Your task to perform on an android device: Do I have any events this weekend? Image 0: 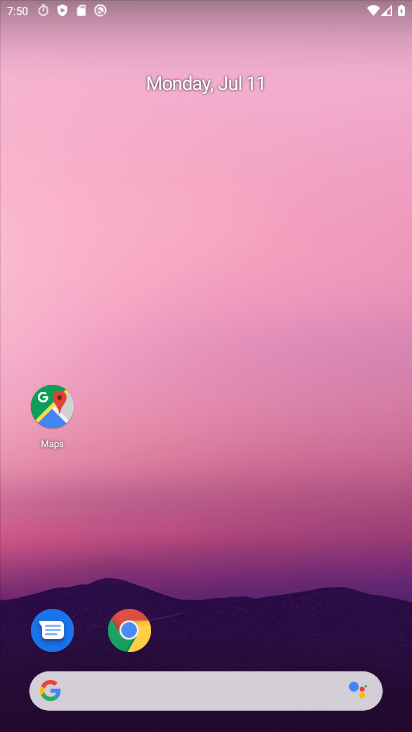
Step 0: drag from (166, 676) to (282, 228)
Your task to perform on an android device: Do I have any events this weekend? Image 1: 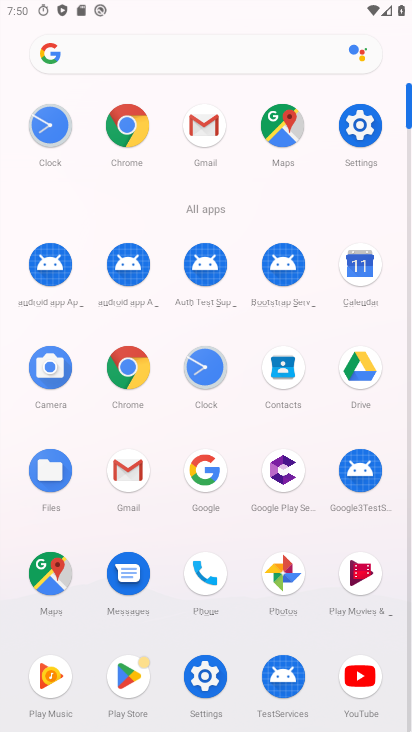
Step 1: click (362, 275)
Your task to perform on an android device: Do I have any events this weekend? Image 2: 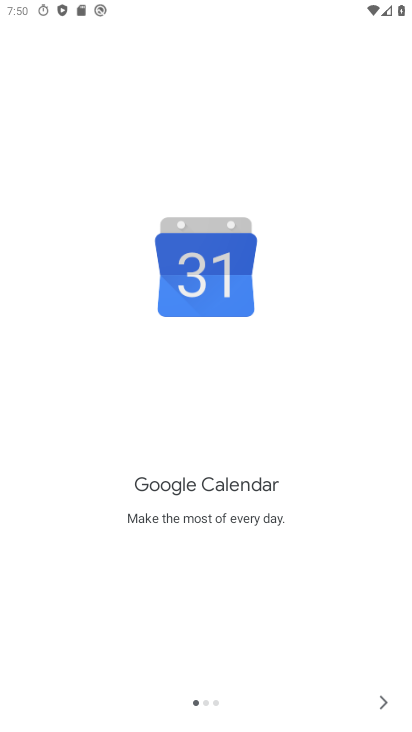
Step 2: click (381, 695)
Your task to perform on an android device: Do I have any events this weekend? Image 3: 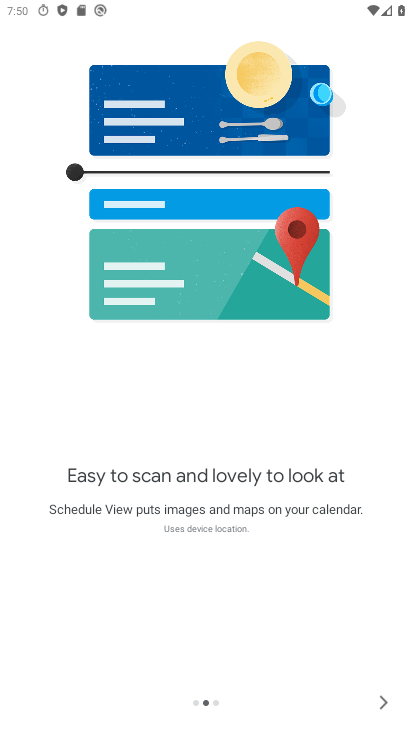
Step 3: click (383, 699)
Your task to perform on an android device: Do I have any events this weekend? Image 4: 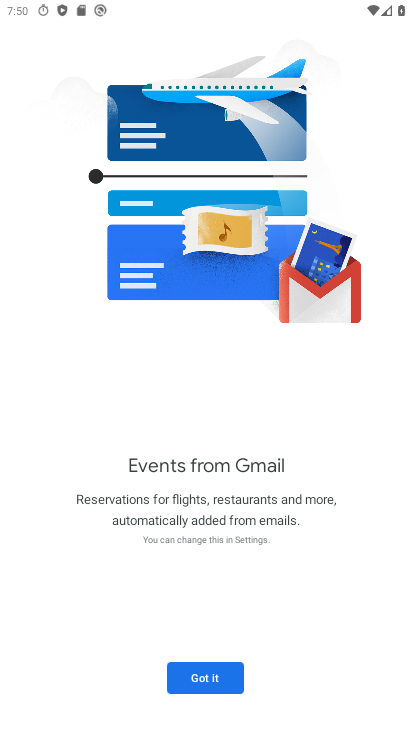
Step 4: click (214, 677)
Your task to perform on an android device: Do I have any events this weekend? Image 5: 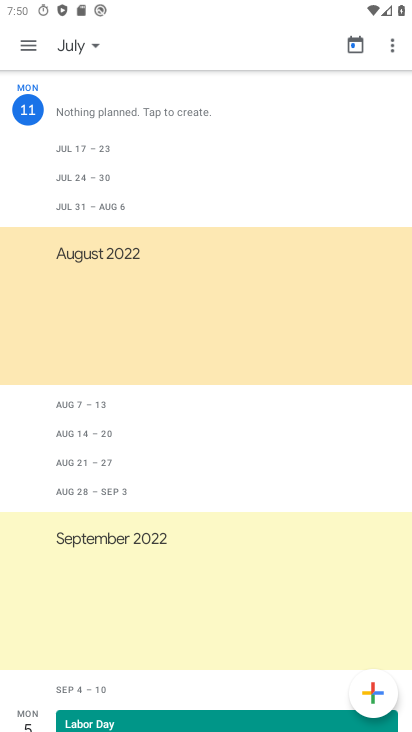
Step 5: click (80, 42)
Your task to perform on an android device: Do I have any events this weekend? Image 6: 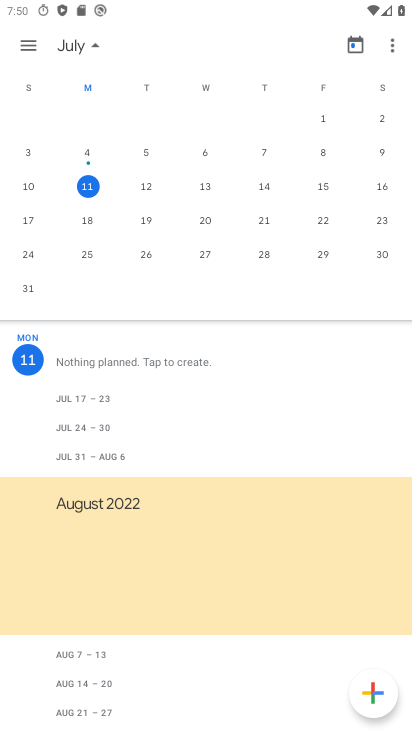
Step 6: click (382, 191)
Your task to perform on an android device: Do I have any events this weekend? Image 7: 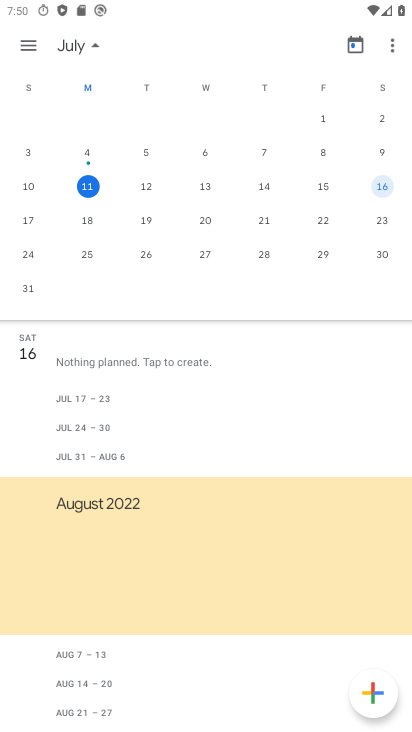
Step 7: click (37, 46)
Your task to perform on an android device: Do I have any events this weekend? Image 8: 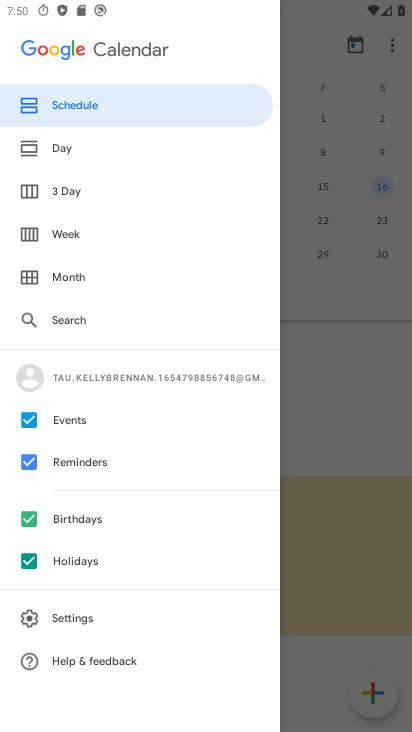
Step 8: click (63, 107)
Your task to perform on an android device: Do I have any events this weekend? Image 9: 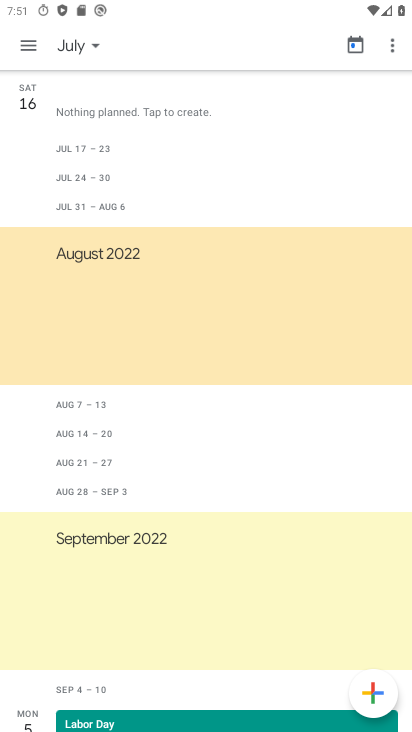
Step 9: task complete